Your task to perform on an android device: Do I have any events tomorrow? Image 0: 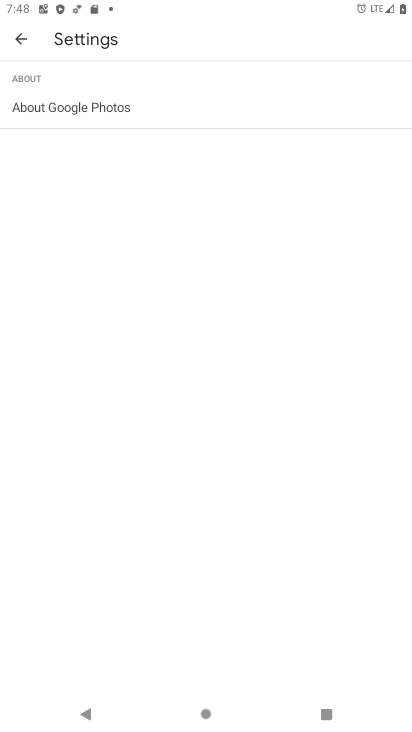
Step 0: press home button
Your task to perform on an android device: Do I have any events tomorrow? Image 1: 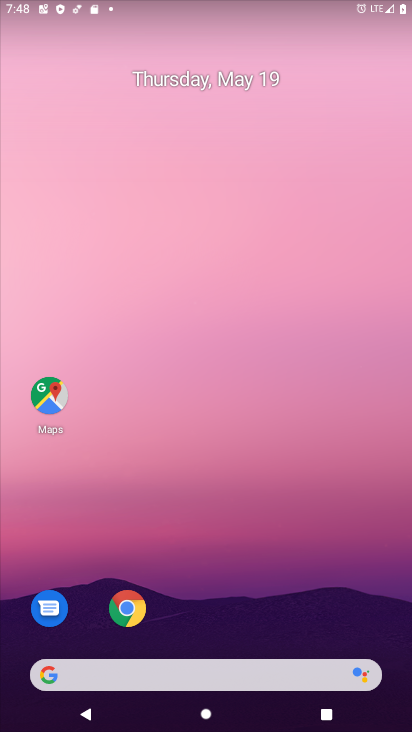
Step 1: drag from (396, 679) to (372, 165)
Your task to perform on an android device: Do I have any events tomorrow? Image 2: 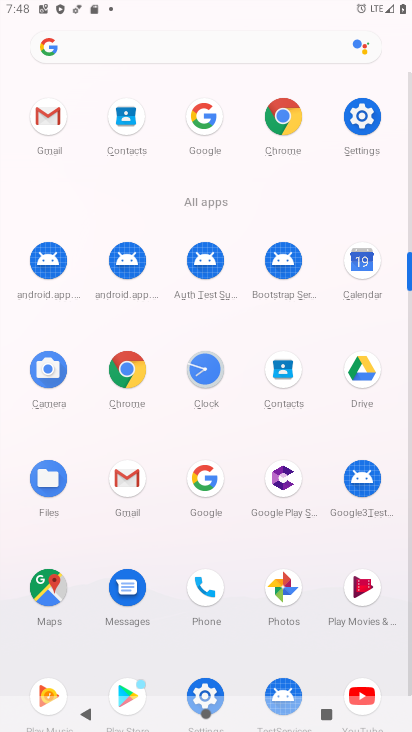
Step 2: click (356, 268)
Your task to perform on an android device: Do I have any events tomorrow? Image 3: 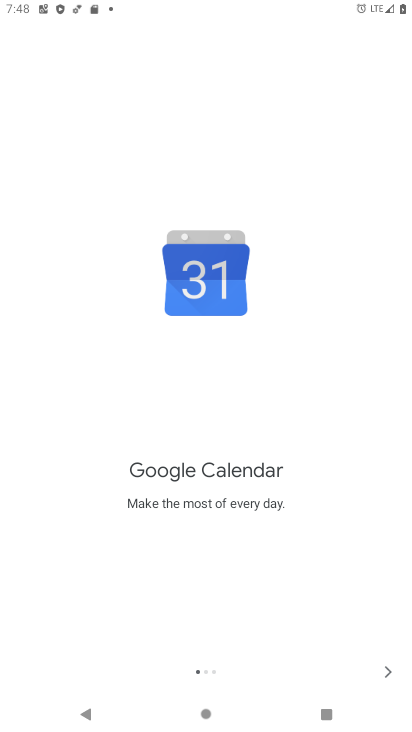
Step 3: click (374, 672)
Your task to perform on an android device: Do I have any events tomorrow? Image 4: 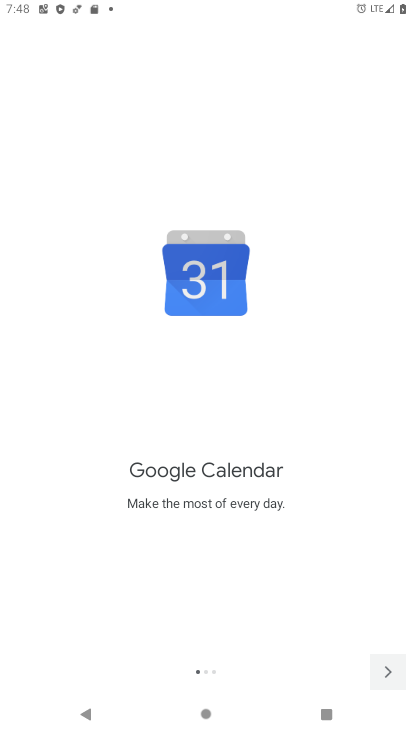
Step 4: click (375, 672)
Your task to perform on an android device: Do I have any events tomorrow? Image 5: 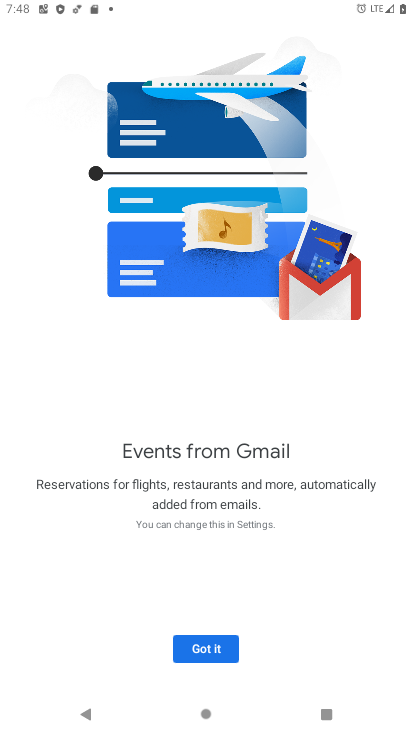
Step 5: click (375, 672)
Your task to perform on an android device: Do I have any events tomorrow? Image 6: 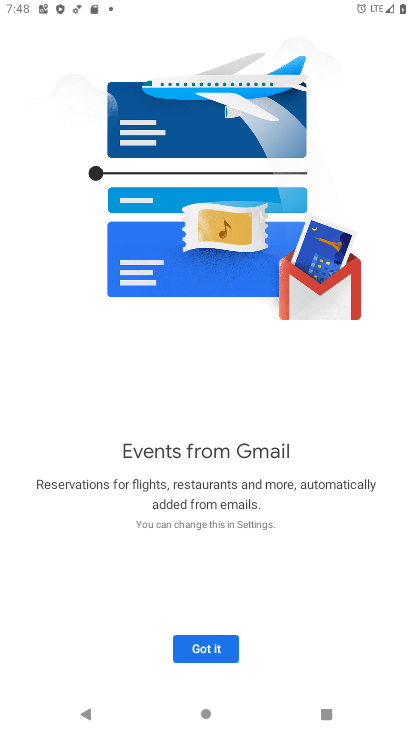
Step 6: click (196, 640)
Your task to perform on an android device: Do I have any events tomorrow? Image 7: 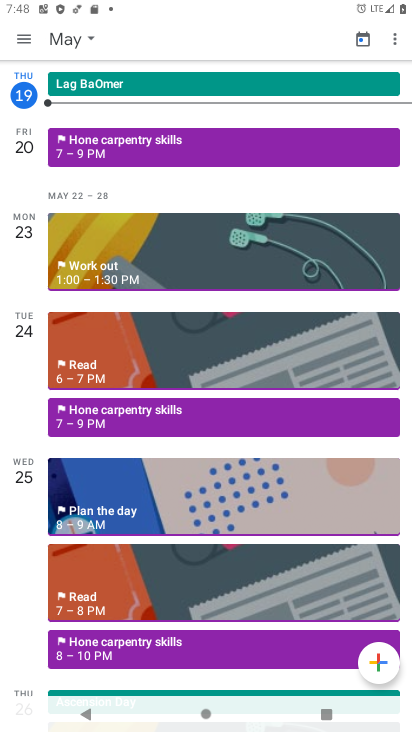
Step 7: click (18, 41)
Your task to perform on an android device: Do I have any events tomorrow? Image 8: 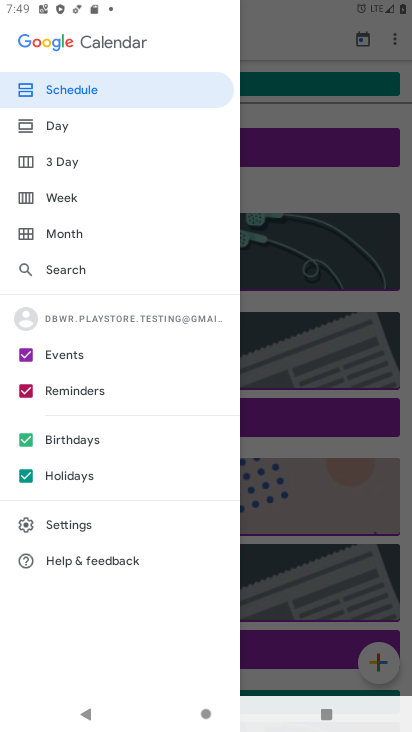
Step 8: press back button
Your task to perform on an android device: Do I have any events tomorrow? Image 9: 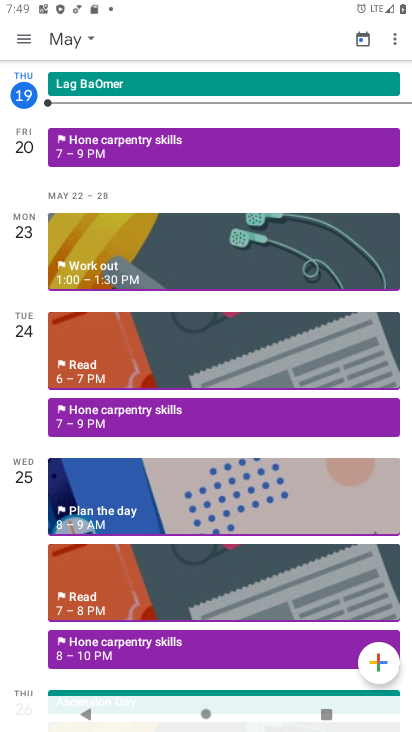
Step 9: click (87, 33)
Your task to perform on an android device: Do I have any events tomorrow? Image 10: 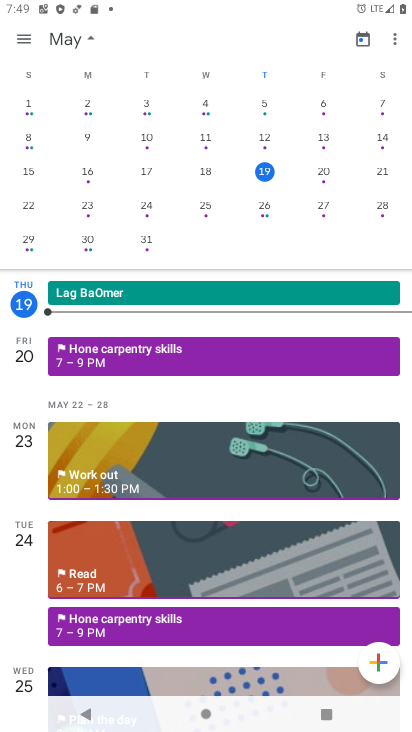
Step 10: click (318, 173)
Your task to perform on an android device: Do I have any events tomorrow? Image 11: 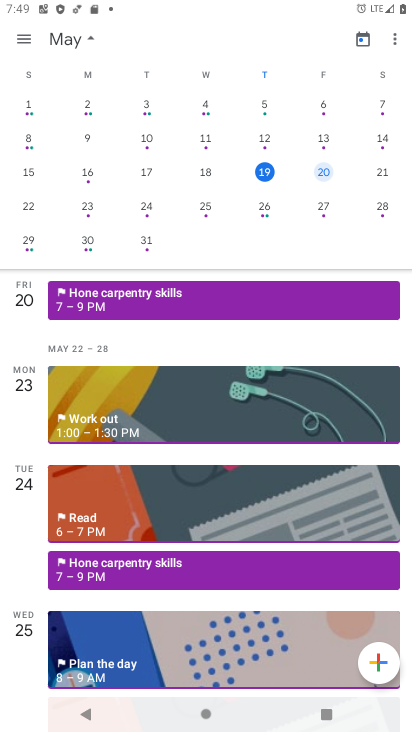
Step 11: task complete